Your task to perform on an android device: check storage Image 0: 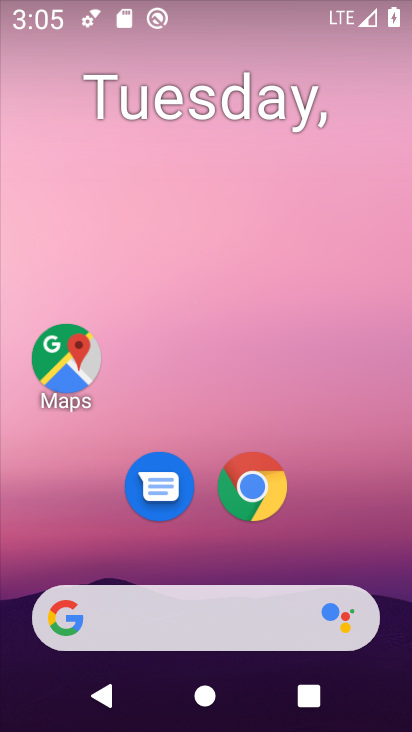
Step 0: press home button
Your task to perform on an android device: check storage Image 1: 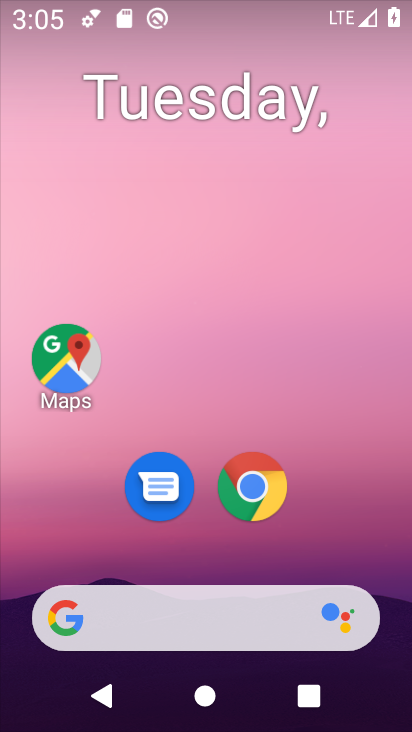
Step 1: drag from (376, 563) to (376, 72)
Your task to perform on an android device: check storage Image 2: 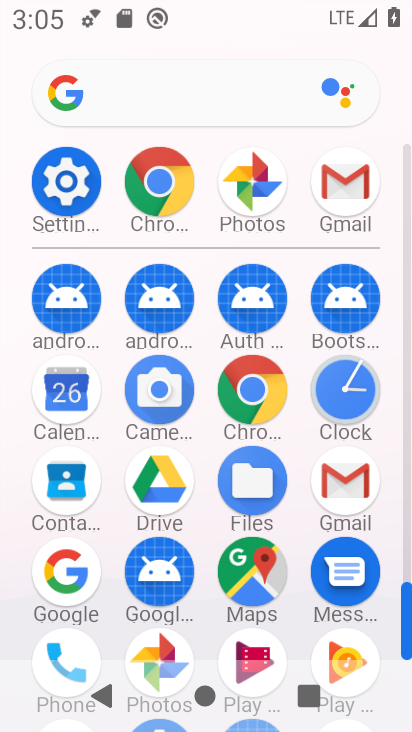
Step 2: click (63, 185)
Your task to perform on an android device: check storage Image 3: 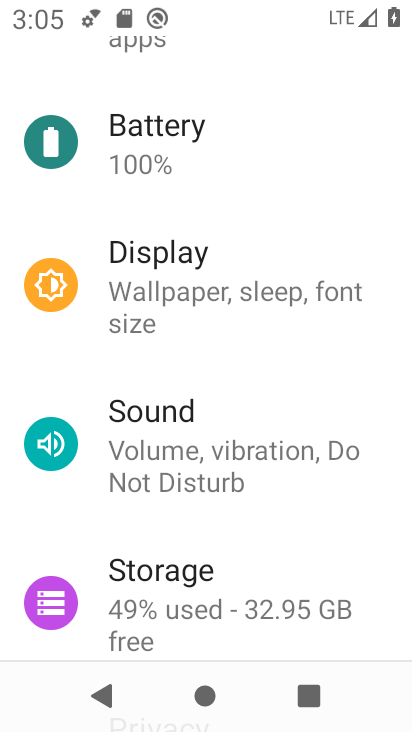
Step 3: drag from (363, 192) to (375, 267)
Your task to perform on an android device: check storage Image 4: 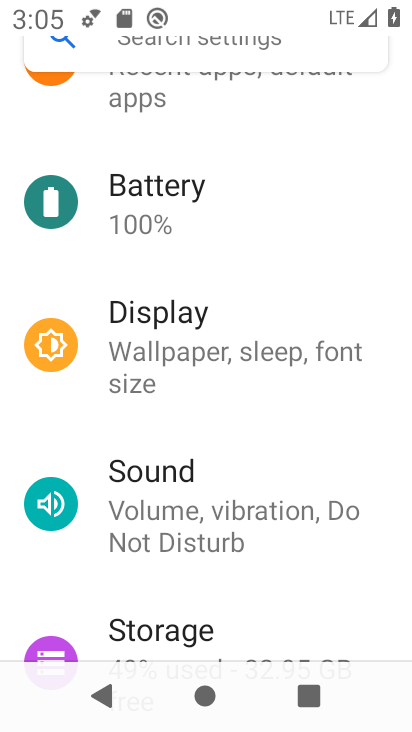
Step 4: drag from (369, 207) to (372, 271)
Your task to perform on an android device: check storage Image 5: 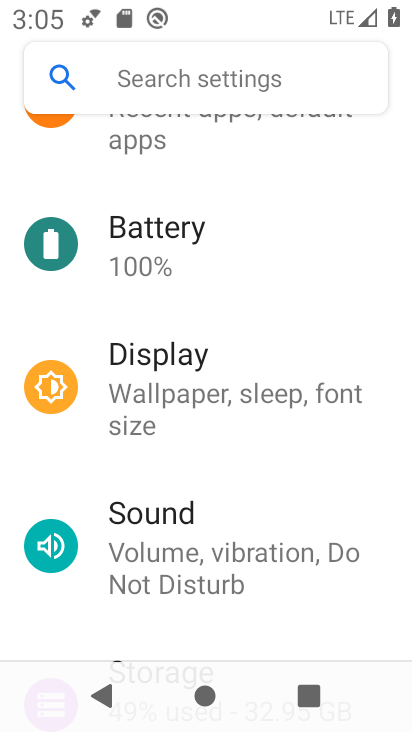
Step 5: drag from (369, 200) to (372, 257)
Your task to perform on an android device: check storage Image 6: 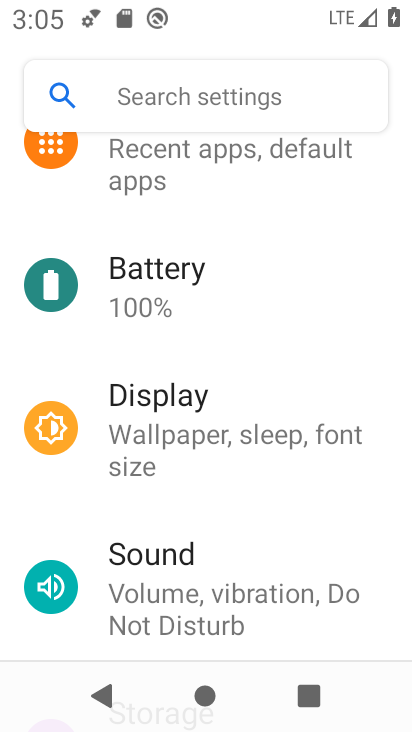
Step 6: drag from (370, 212) to (370, 299)
Your task to perform on an android device: check storage Image 7: 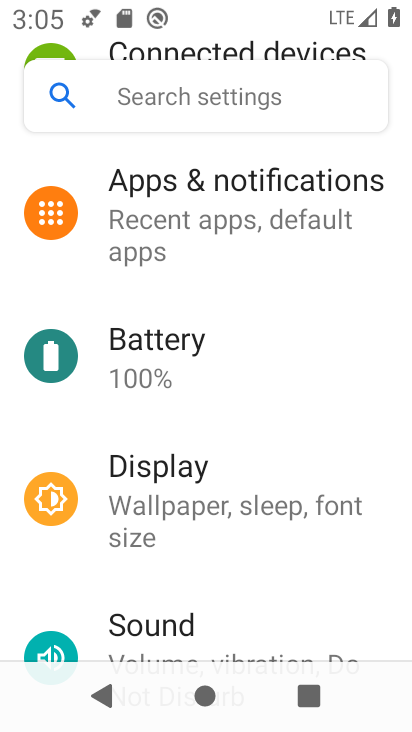
Step 7: drag from (371, 233) to (382, 317)
Your task to perform on an android device: check storage Image 8: 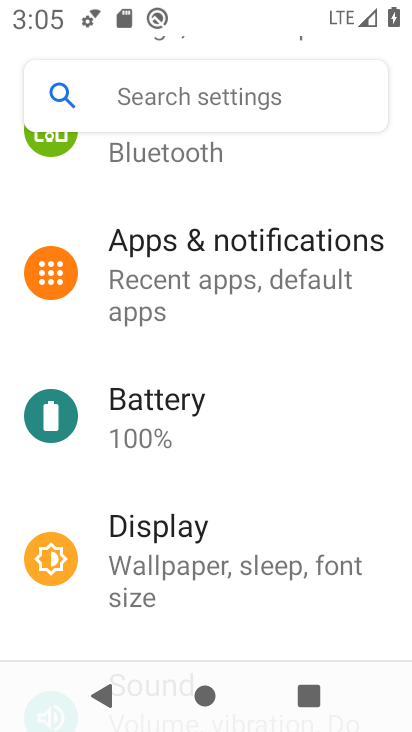
Step 8: drag from (361, 267) to (380, 509)
Your task to perform on an android device: check storage Image 9: 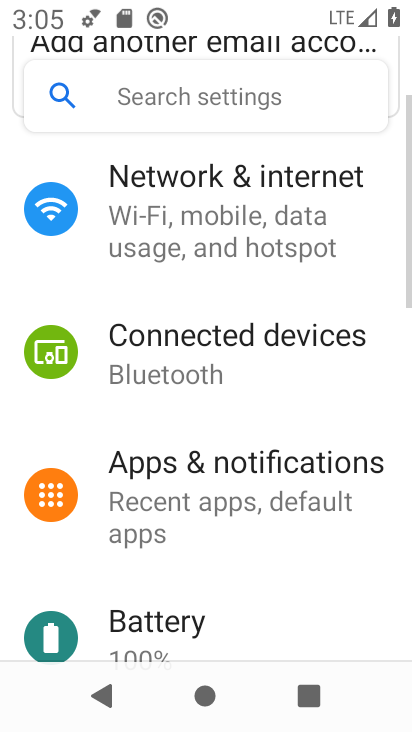
Step 9: drag from (377, 528) to (373, 411)
Your task to perform on an android device: check storage Image 10: 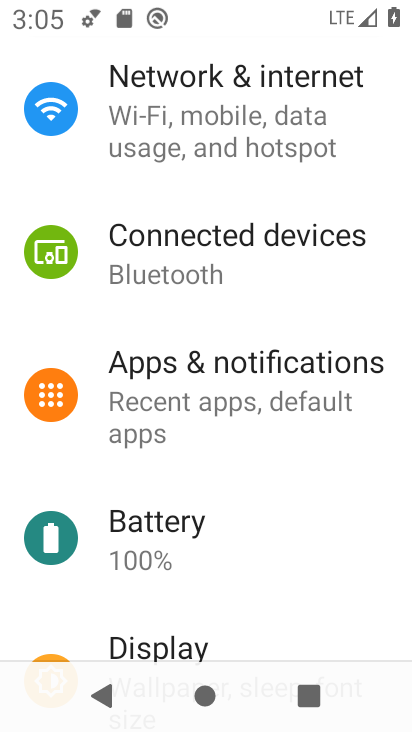
Step 10: drag from (356, 511) to (343, 409)
Your task to perform on an android device: check storage Image 11: 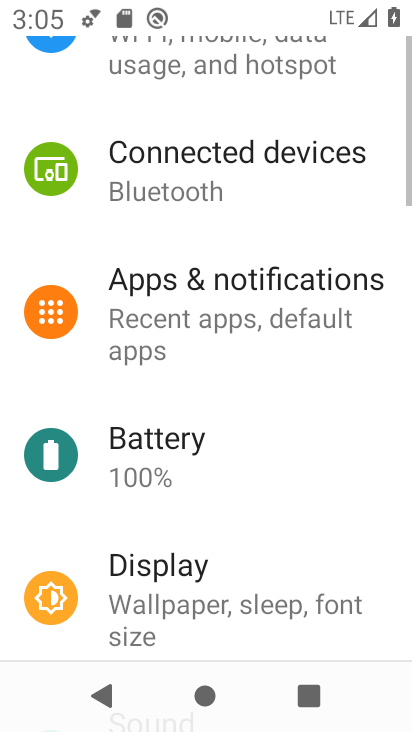
Step 11: drag from (328, 506) to (326, 417)
Your task to perform on an android device: check storage Image 12: 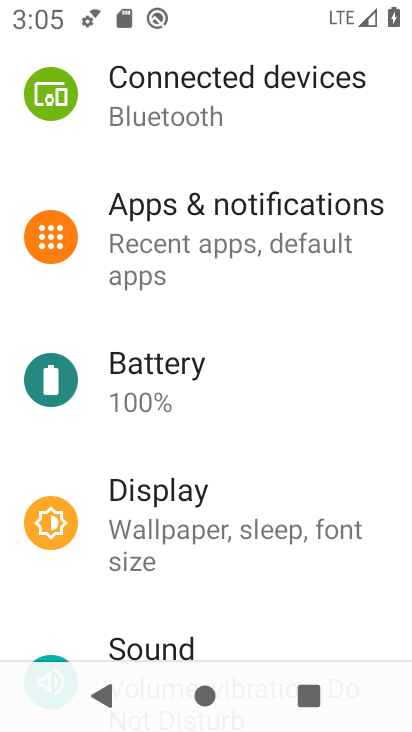
Step 12: drag from (325, 521) to (319, 414)
Your task to perform on an android device: check storage Image 13: 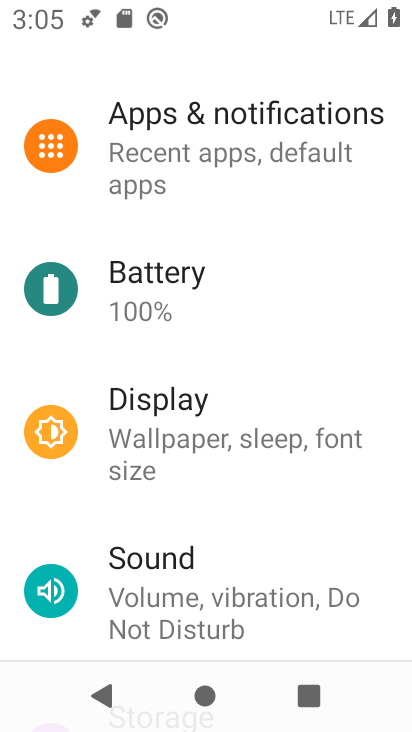
Step 13: drag from (307, 520) to (302, 420)
Your task to perform on an android device: check storage Image 14: 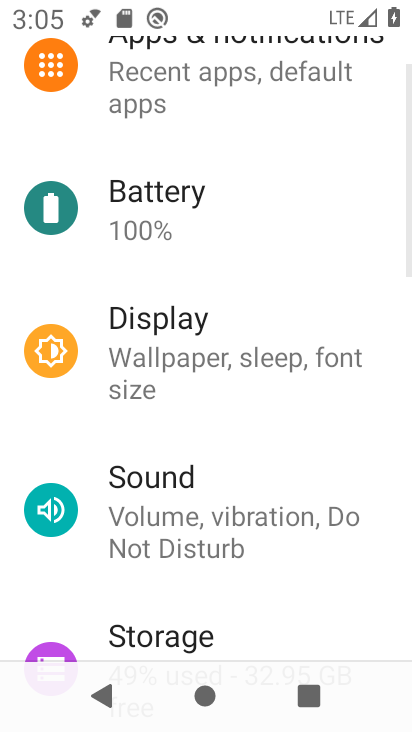
Step 14: drag from (303, 563) to (303, 465)
Your task to perform on an android device: check storage Image 15: 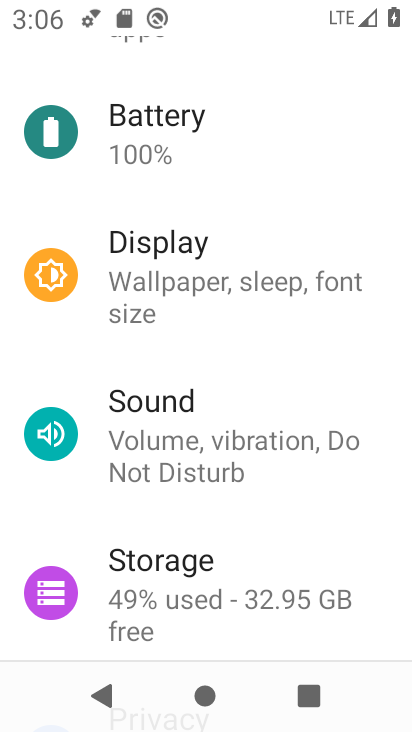
Step 15: drag from (297, 577) to (301, 439)
Your task to perform on an android device: check storage Image 16: 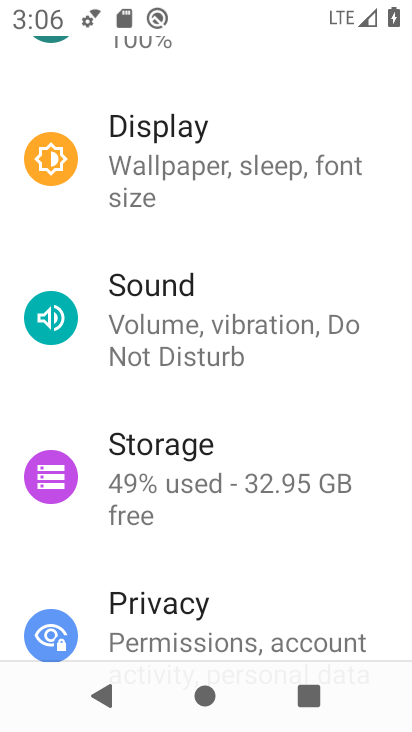
Step 16: click (295, 489)
Your task to perform on an android device: check storage Image 17: 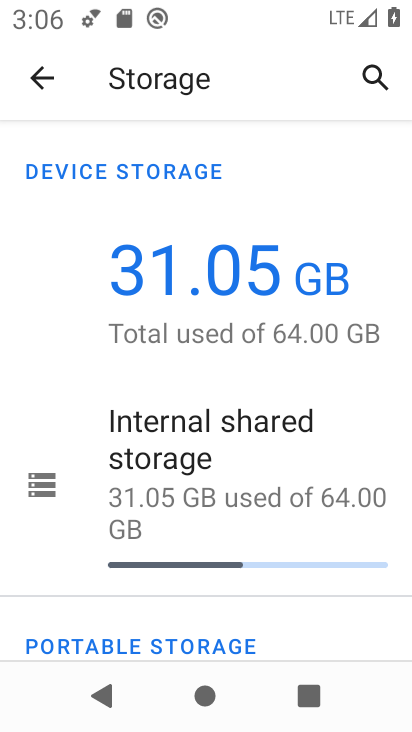
Step 17: task complete